Your task to perform on an android device: Go to settings Image 0: 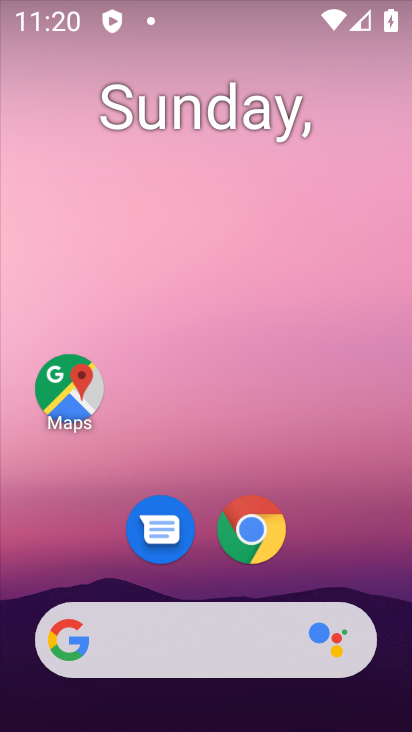
Step 0: drag from (343, 526) to (297, 99)
Your task to perform on an android device: Go to settings Image 1: 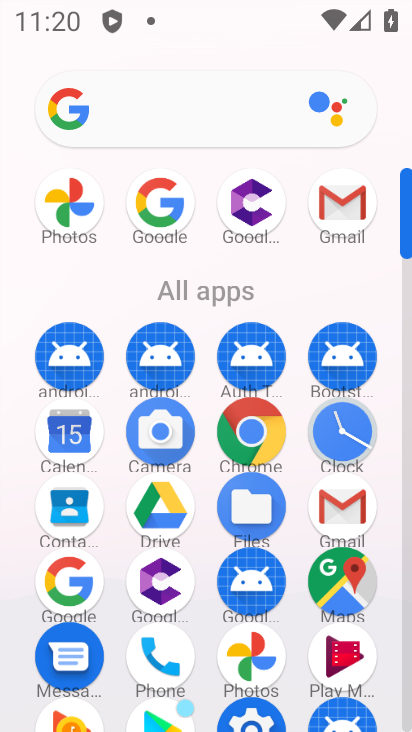
Step 1: drag from (115, 526) to (109, 285)
Your task to perform on an android device: Go to settings Image 2: 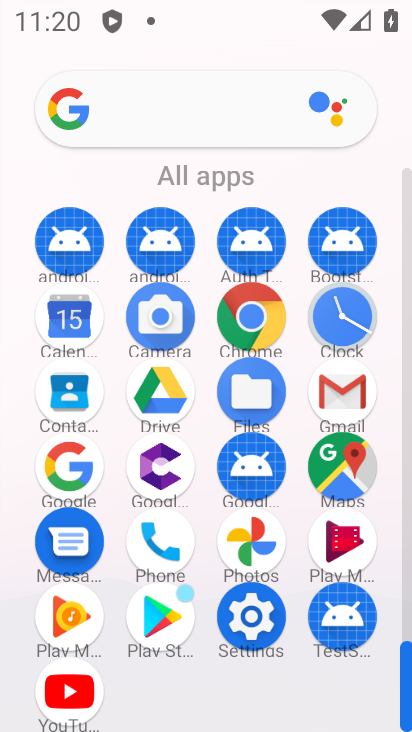
Step 2: click (250, 617)
Your task to perform on an android device: Go to settings Image 3: 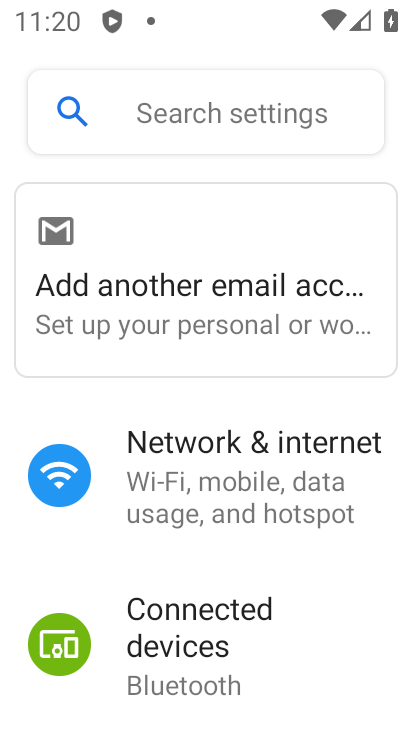
Step 3: task complete